Your task to perform on an android device: open app "LiveIn - Share Your Moment" (install if not already installed) Image 0: 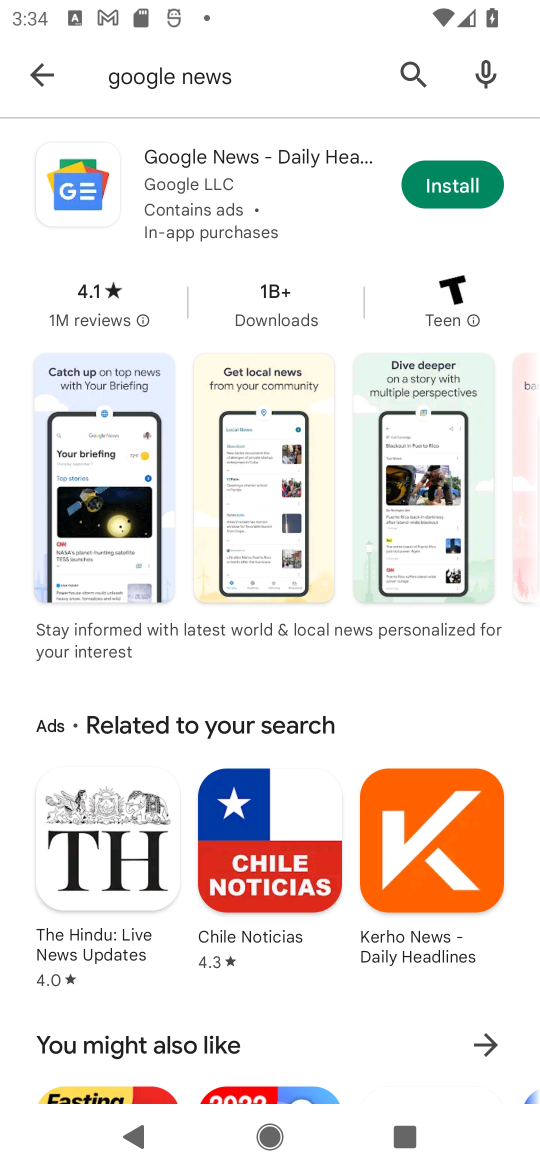
Step 0: click (407, 64)
Your task to perform on an android device: open app "LiveIn - Share Your Moment" (install if not already installed) Image 1: 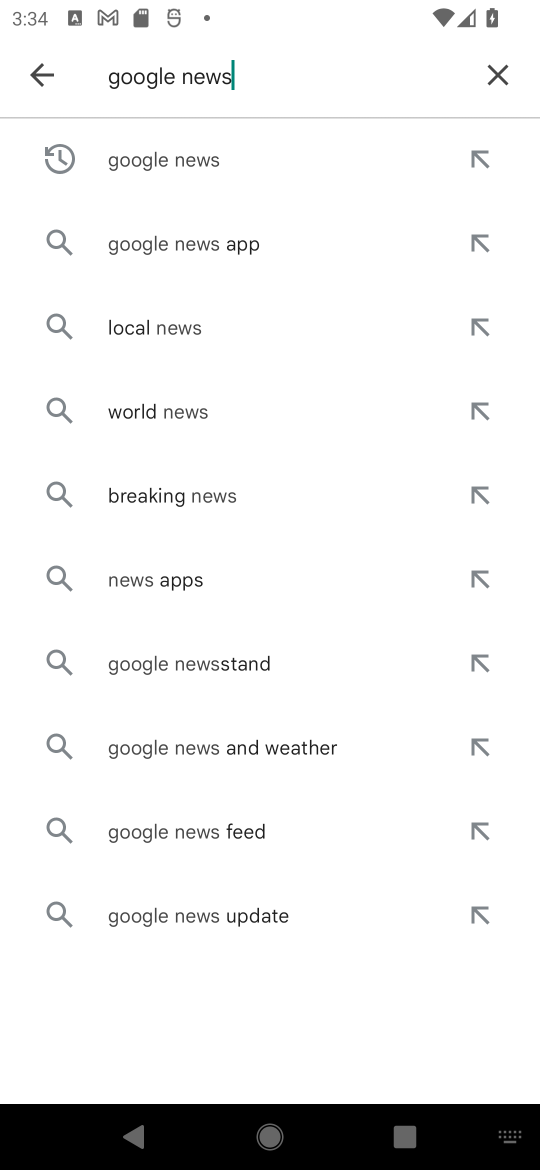
Step 1: click (490, 85)
Your task to perform on an android device: open app "LiveIn - Share Your Moment" (install if not already installed) Image 2: 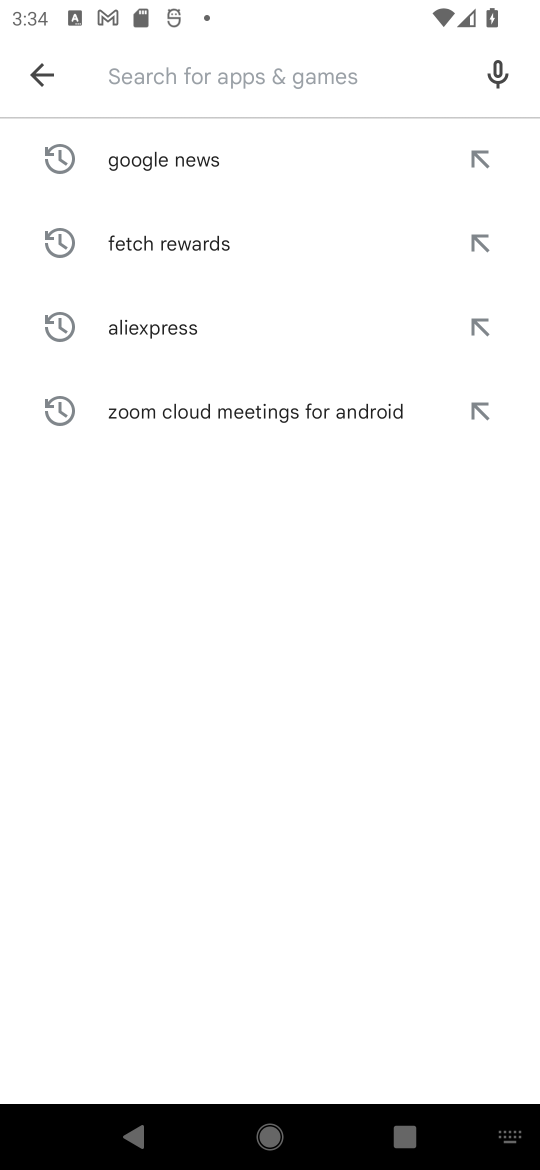
Step 2: click (228, 79)
Your task to perform on an android device: open app "LiveIn - Share Your Moment" (install if not already installed) Image 3: 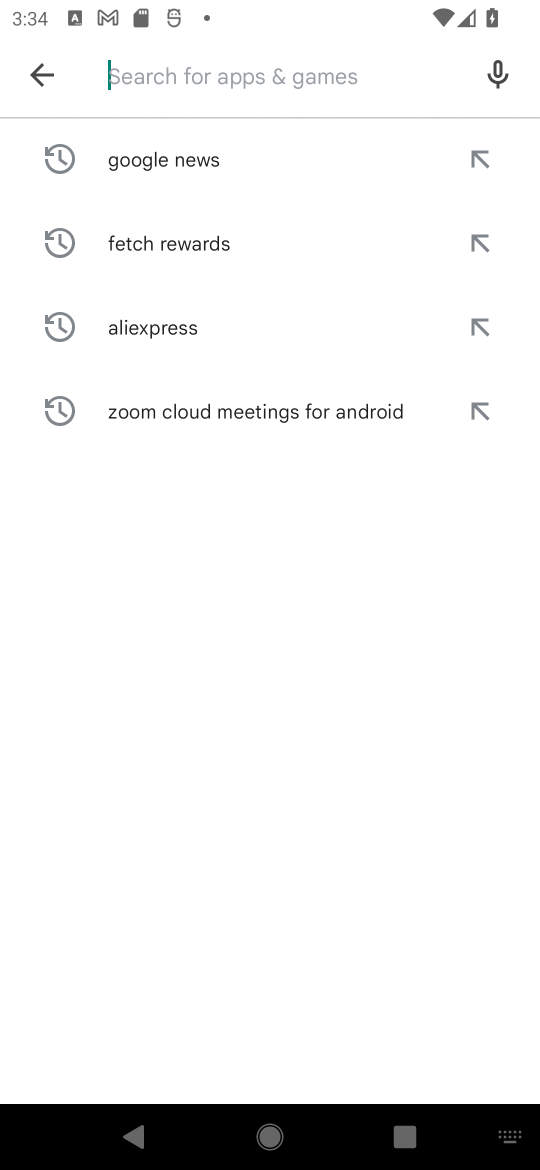
Step 3: type "LiveIn - Share Your Moment"
Your task to perform on an android device: open app "LiveIn - Share Your Moment" (install if not already installed) Image 4: 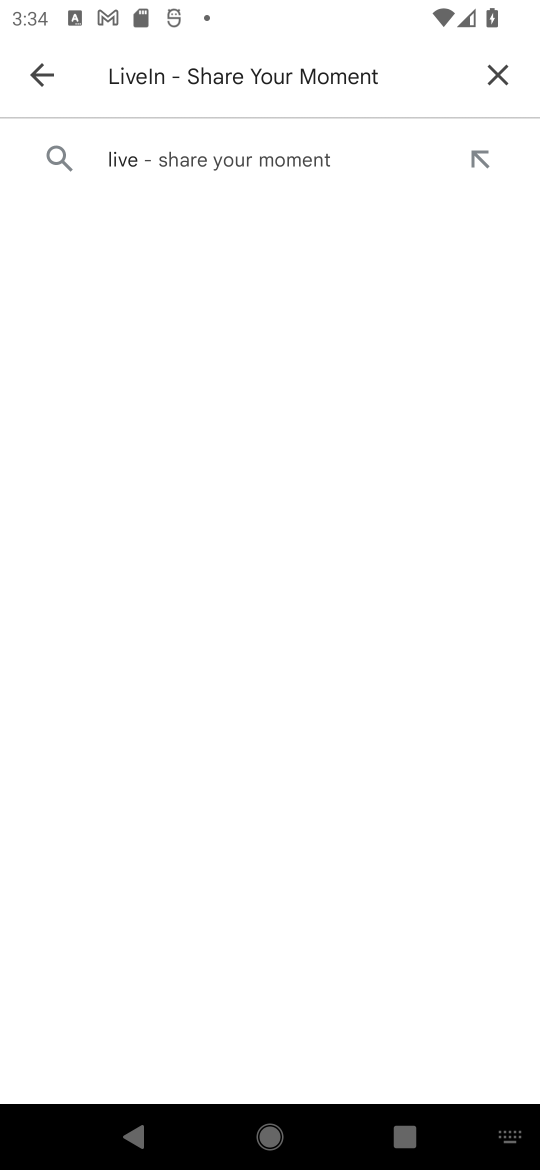
Step 4: click (225, 166)
Your task to perform on an android device: open app "LiveIn - Share Your Moment" (install if not already installed) Image 5: 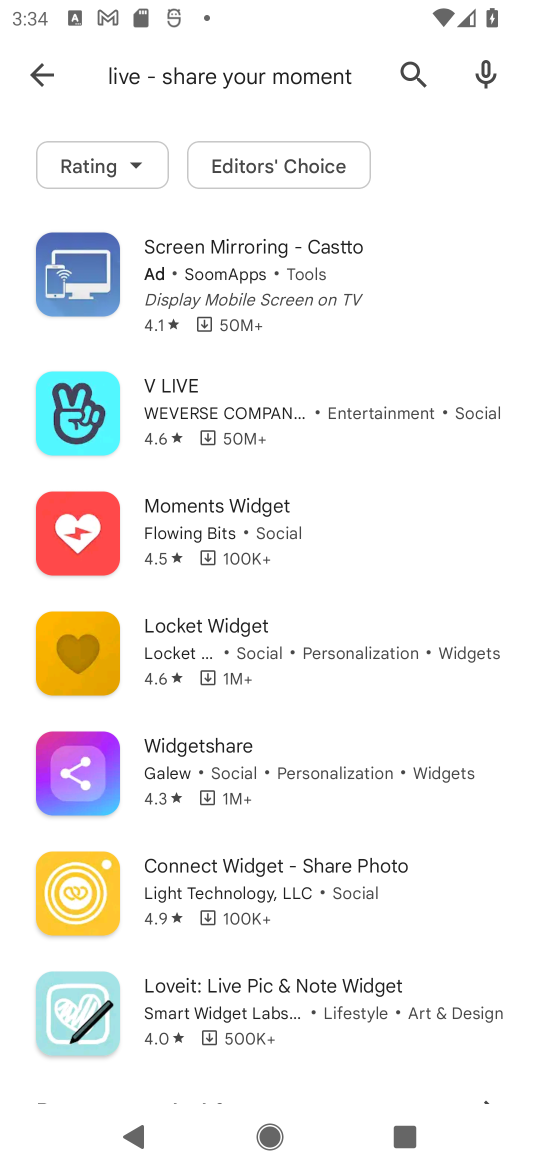
Step 5: task complete